Your task to perform on an android device: View the shopping cart on walmart.com. Image 0: 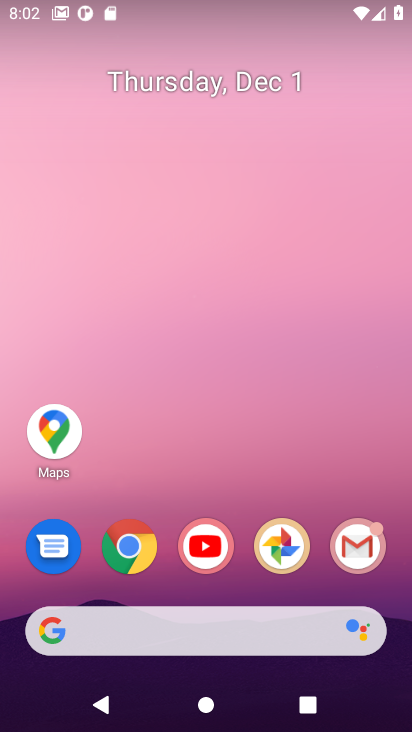
Step 0: click (120, 550)
Your task to perform on an android device: View the shopping cart on walmart.com. Image 1: 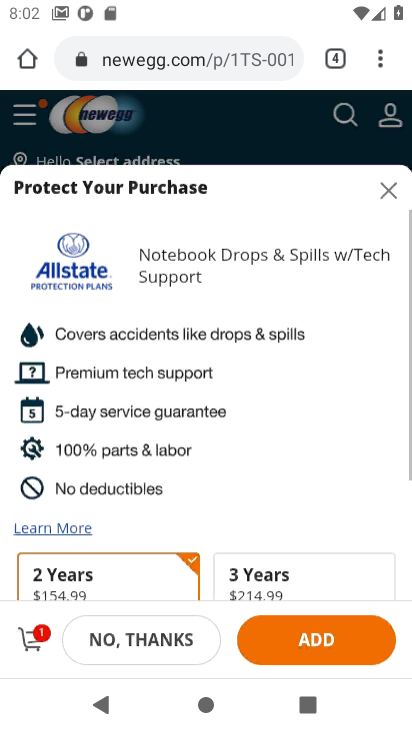
Step 1: click (181, 65)
Your task to perform on an android device: View the shopping cart on walmart.com. Image 2: 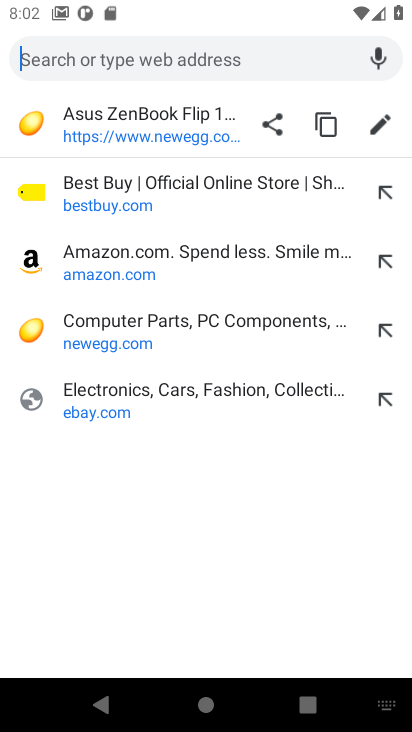
Step 2: type "walmart.com"
Your task to perform on an android device: View the shopping cart on walmart.com. Image 3: 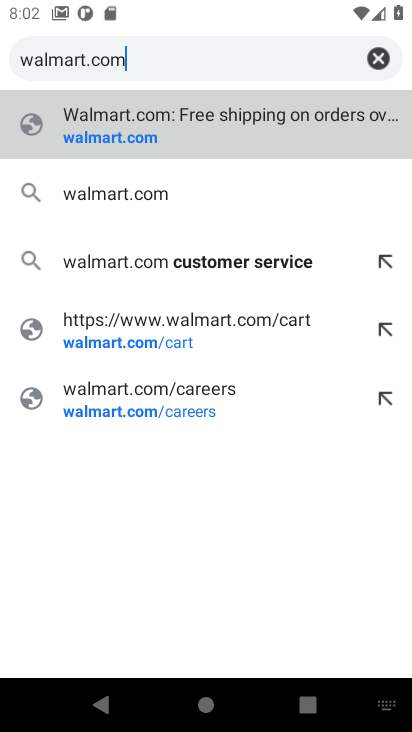
Step 3: click (101, 131)
Your task to perform on an android device: View the shopping cart on walmart.com. Image 4: 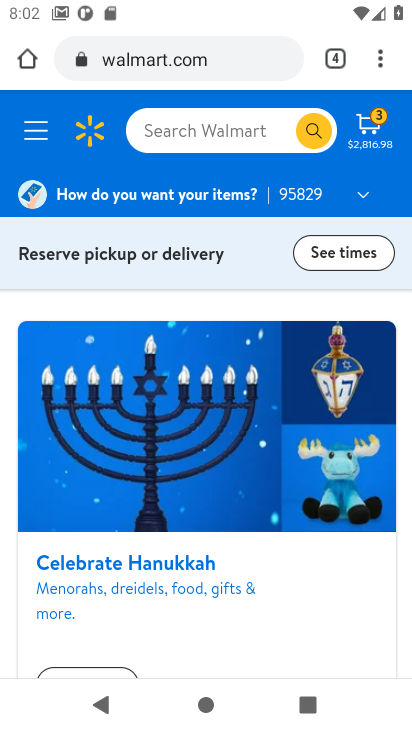
Step 4: click (368, 133)
Your task to perform on an android device: View the shopping cart on walmart.com. Image 5: 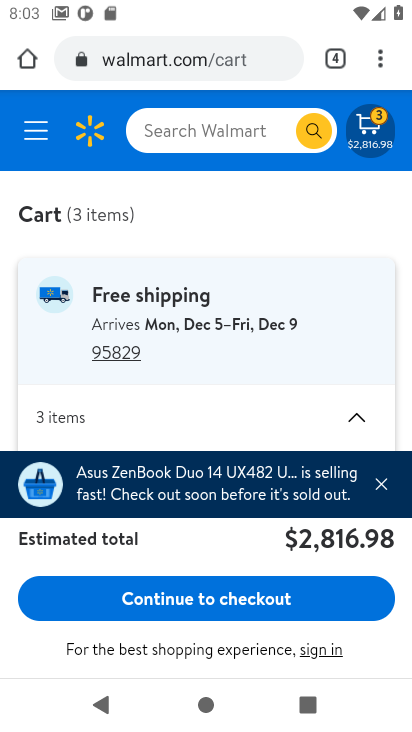
Step 5: task complete